Your task to perform on an android device: add a contact in the contacts app Image 0: 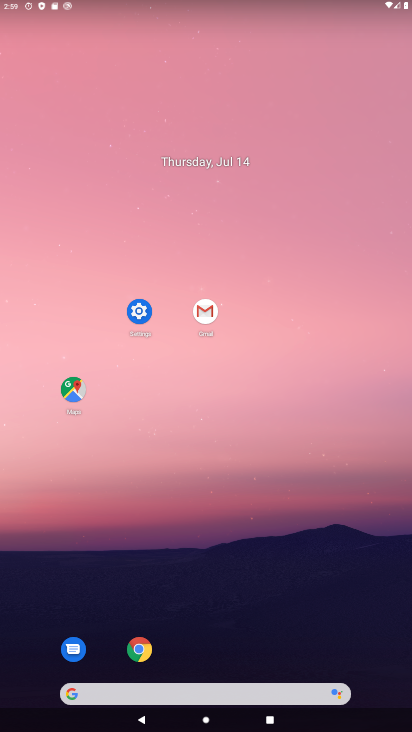
Step 0: drag from (304, 663) to (300, 125)
Your task to perform on an android device: add a contact in the contacts app Image 1: 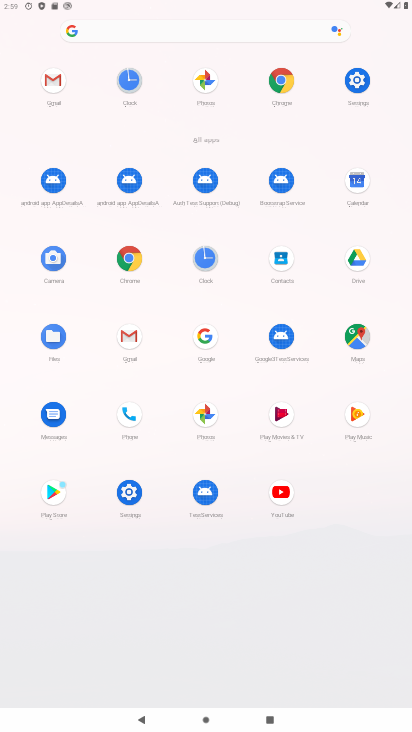
Step 1: click (273, 260)
Your task to perform on an android device: add a contact in the contacts app Image 2: 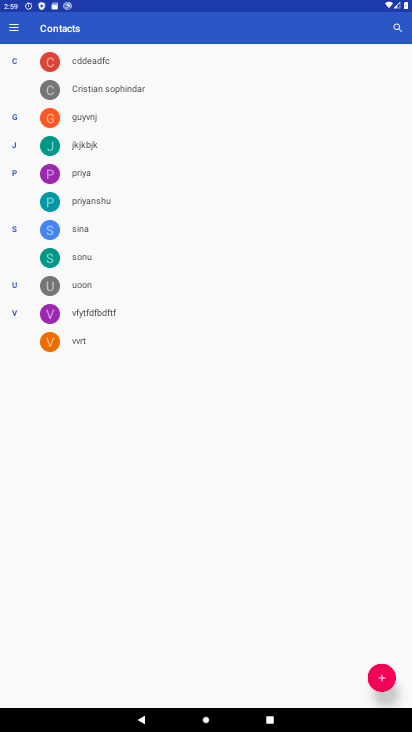
Step 2: click (390, 682)
Your task to perform on an android device: add a contact in the contacts app Image 3: 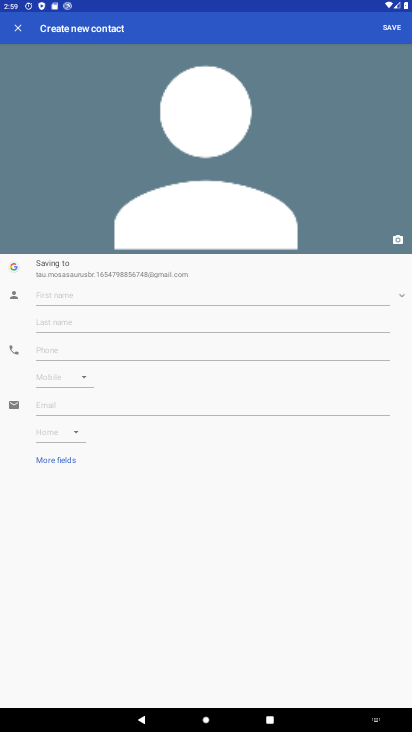
Step 3: click (165, 296)
Your task to perform on an android device: add a contact in the contacts app Image 4: 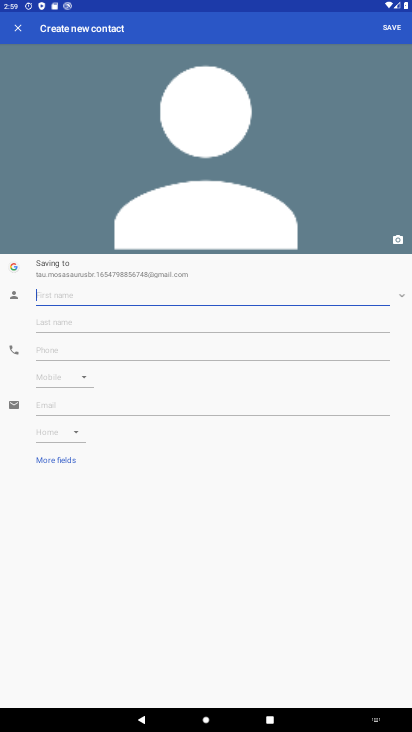
Step 4: type "uuyhu"
Your task to perform on an android device: add a contact in the contacts app Image 5: 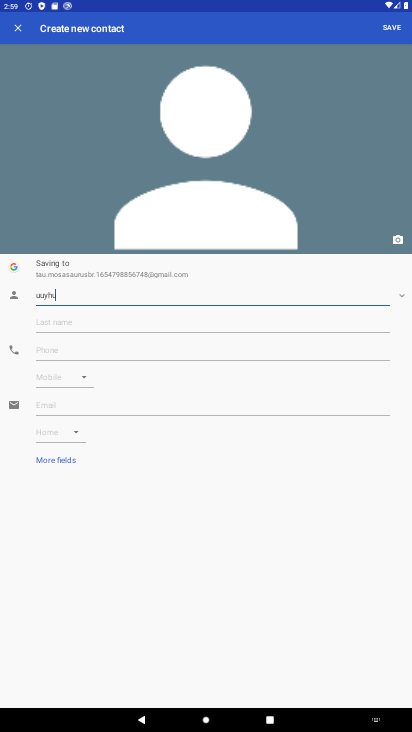
Step 5: click (53, 346)
Your task to perform on an android device: add a contact in the contacts app Image 6: 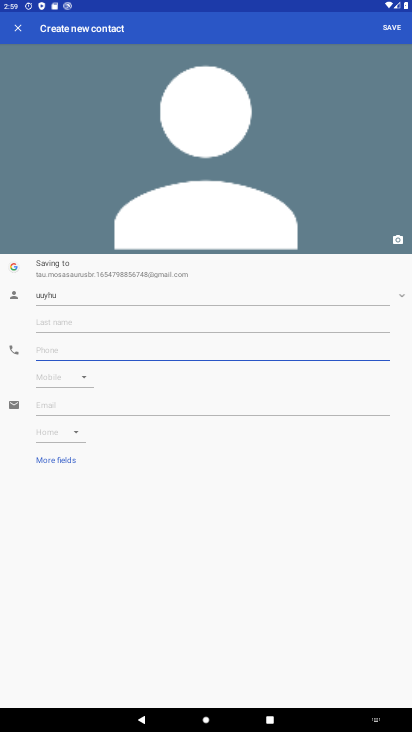
Step 6: type "6654321876"
Your task to perform on an android device: add a contact in the contacts app Image 7: 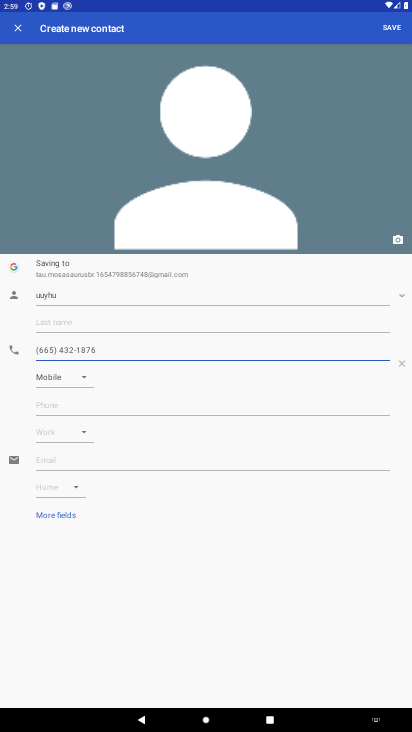
Step 7: click (382, 25)
Your task to perform on an android device: add a contact in the contacts app Image 8: 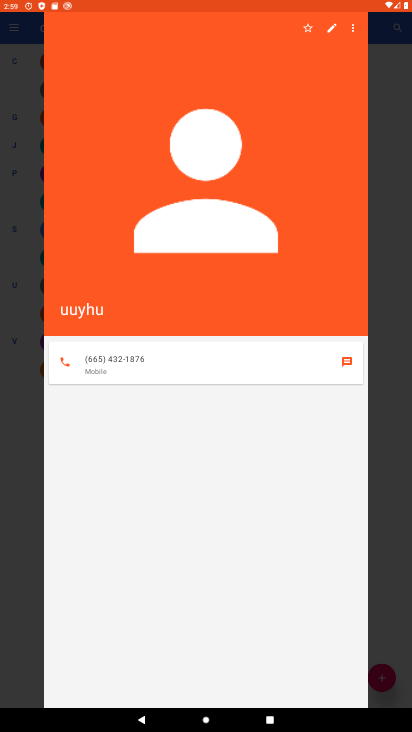
Step 8: task complete